Your task to perform on an android device: What's the weather going to be tomorrow? Image 0: 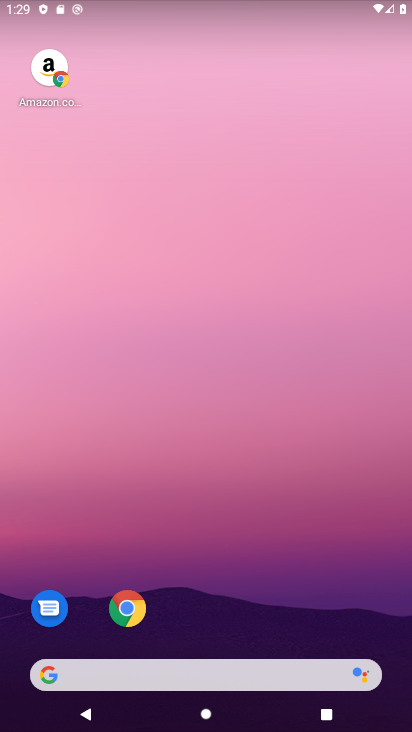
Step 0: drag from (258, 677) to (326, 110)
Your task to perform on an android device: What's the weather going to be tomorrow? Image 1: 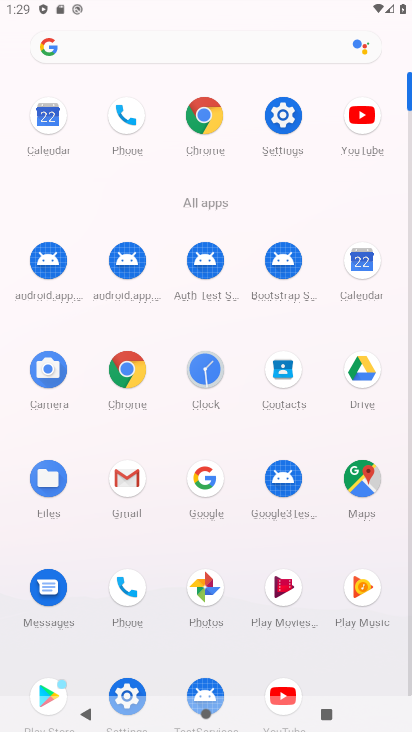
Step 1: click (207, 54)
Your task to perform on an android device: What's the weather going to be tomorrow? Image 2: 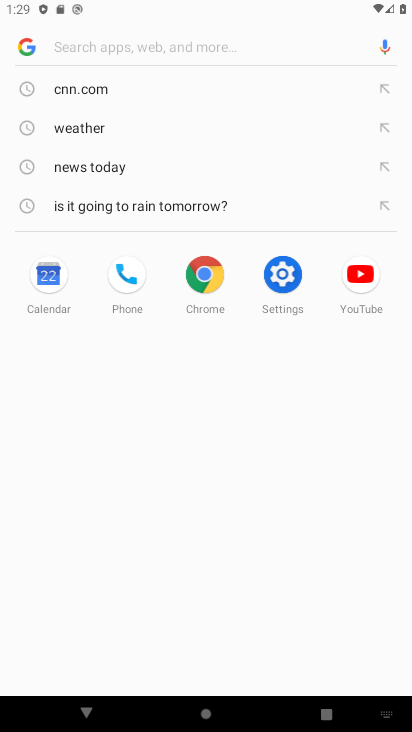
Step 2: click (79, 123)
Your task to perform on an android device: What's the weather going to be tomorrow? Image 3: 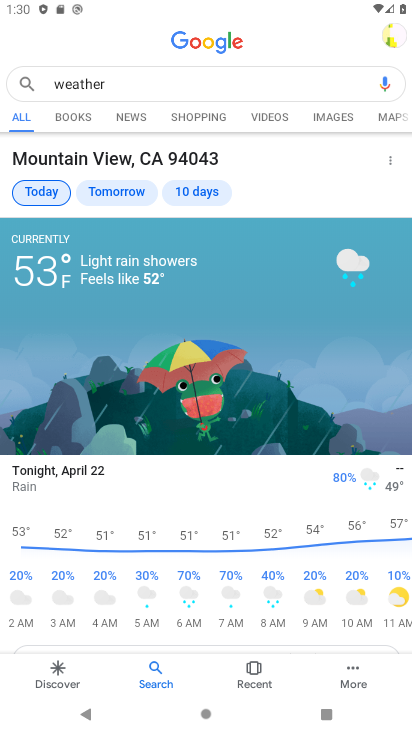
Step 3: click (123, 173)
Your task to perform on an android device: What's the weather going to be tomorrow? Image 4: 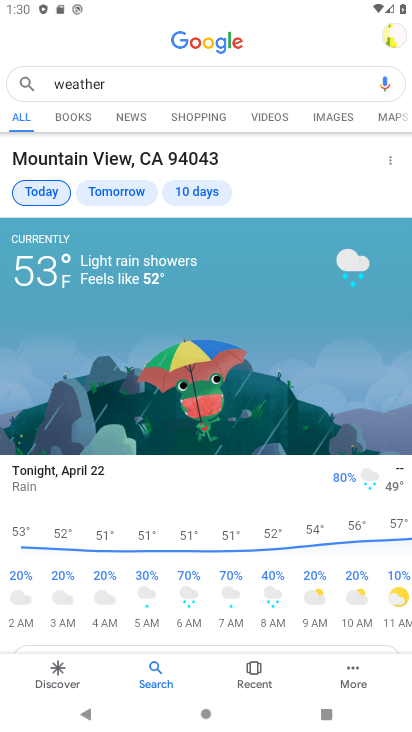
Step 4: click (121, 188)
Your task to perform on an android device: What's the weather going to be tomorrow? Image 5: 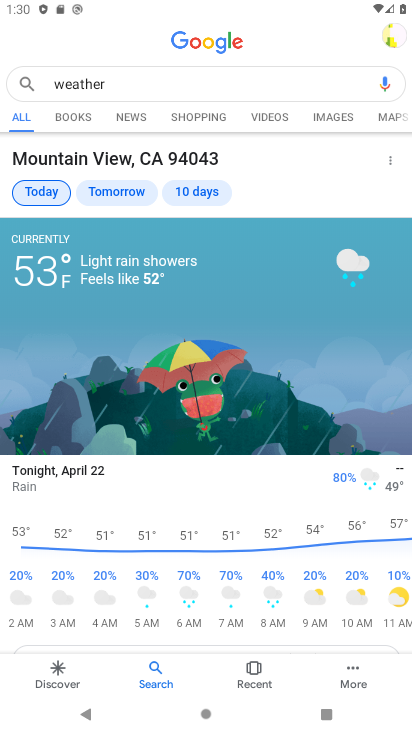
Step 5: click (128, 181)
Your task to perform on an android device: What's the weather going to be tomorrow? Image 6: 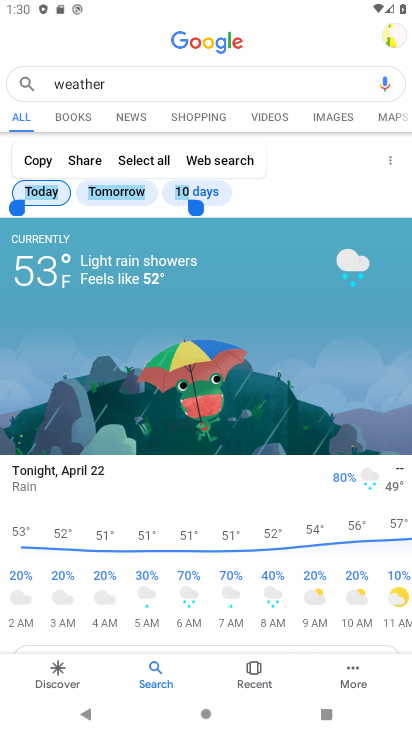
Step 6: task complete